Your task to perform on an android device: open a bookmark in the chrome app Image 0: 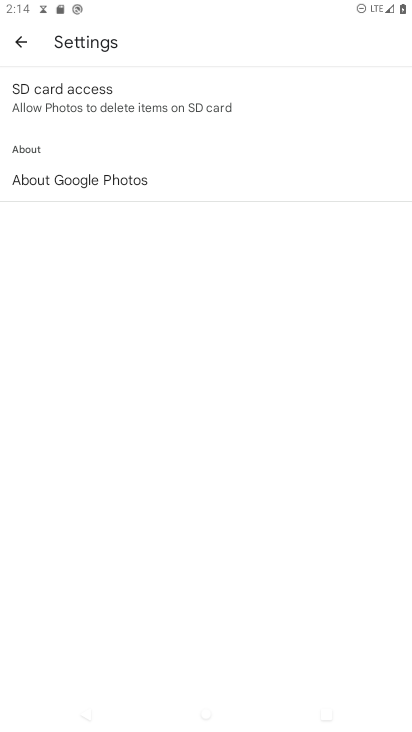
Step 0: press home button
Your task to perform on an android device: open a bookmark in the chrome app Image 1: 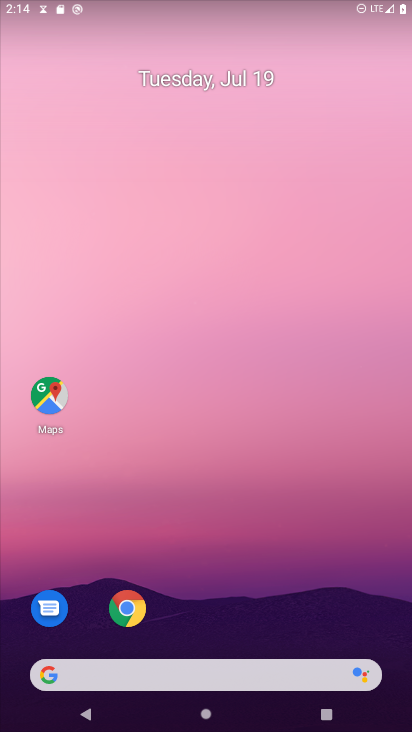
Step 1: drag from (324, 539) to (313, 30)
Your task to perform on an android device: open a bookmark in the chrome app Image 2: 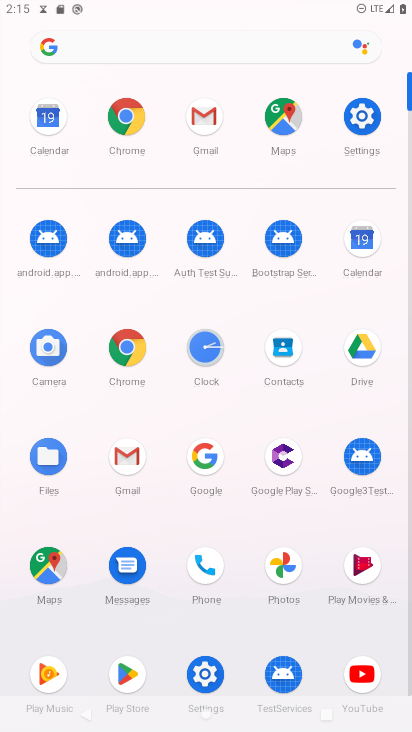
Step 2: click (120, 347)
Your task to perform on an android device: open a bookmark in the chrome app Image 3: 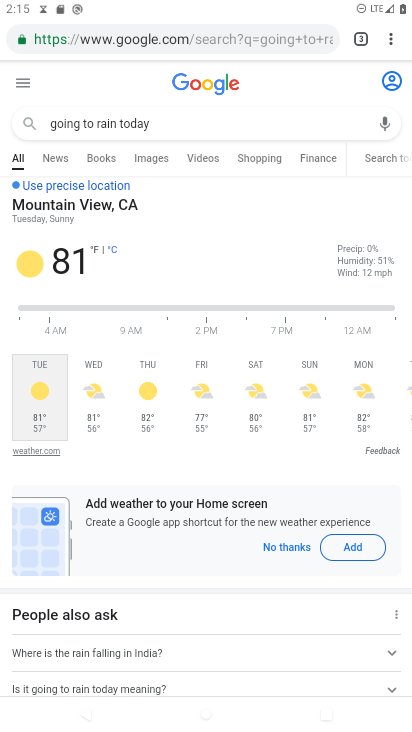
Step 3: click (391, 39)
Your task to perform on an android device: open a bookmark in the chrome app Image 4: 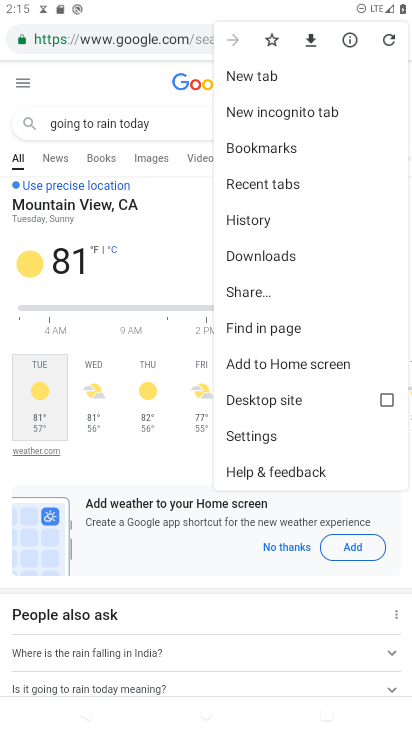
Step 4: click (277, 145)
Your task to perform on an android device: open a bookmark in the chrome app Image 5: 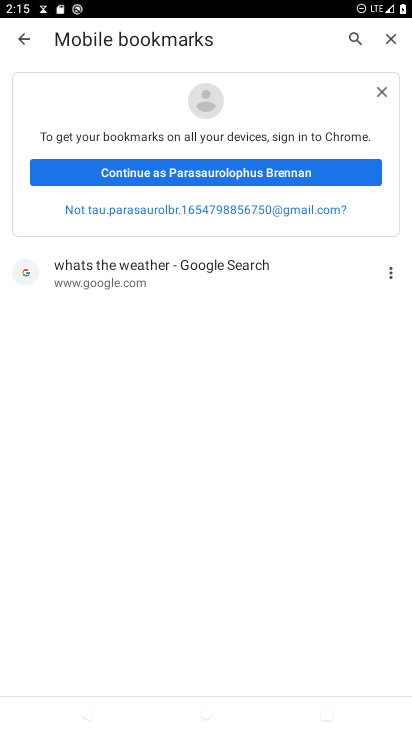
Step 5: task complete